Your task to perform on an android device: open app "Google Find My Device" (install if not already installed) Image 0: 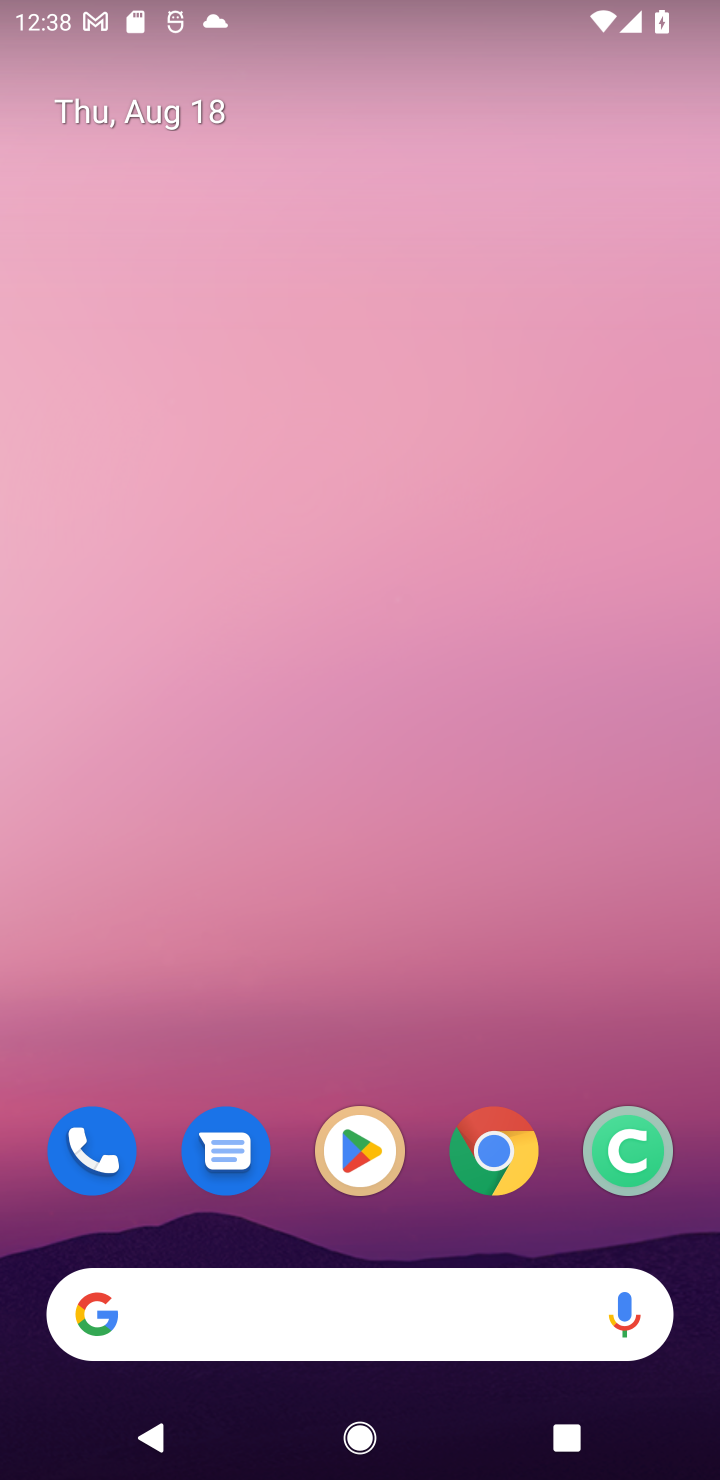
Step 0: click (355, 1168)
Your task to perform on an android device: open app "Google Find My Device" (install if not already installed) Image 1: 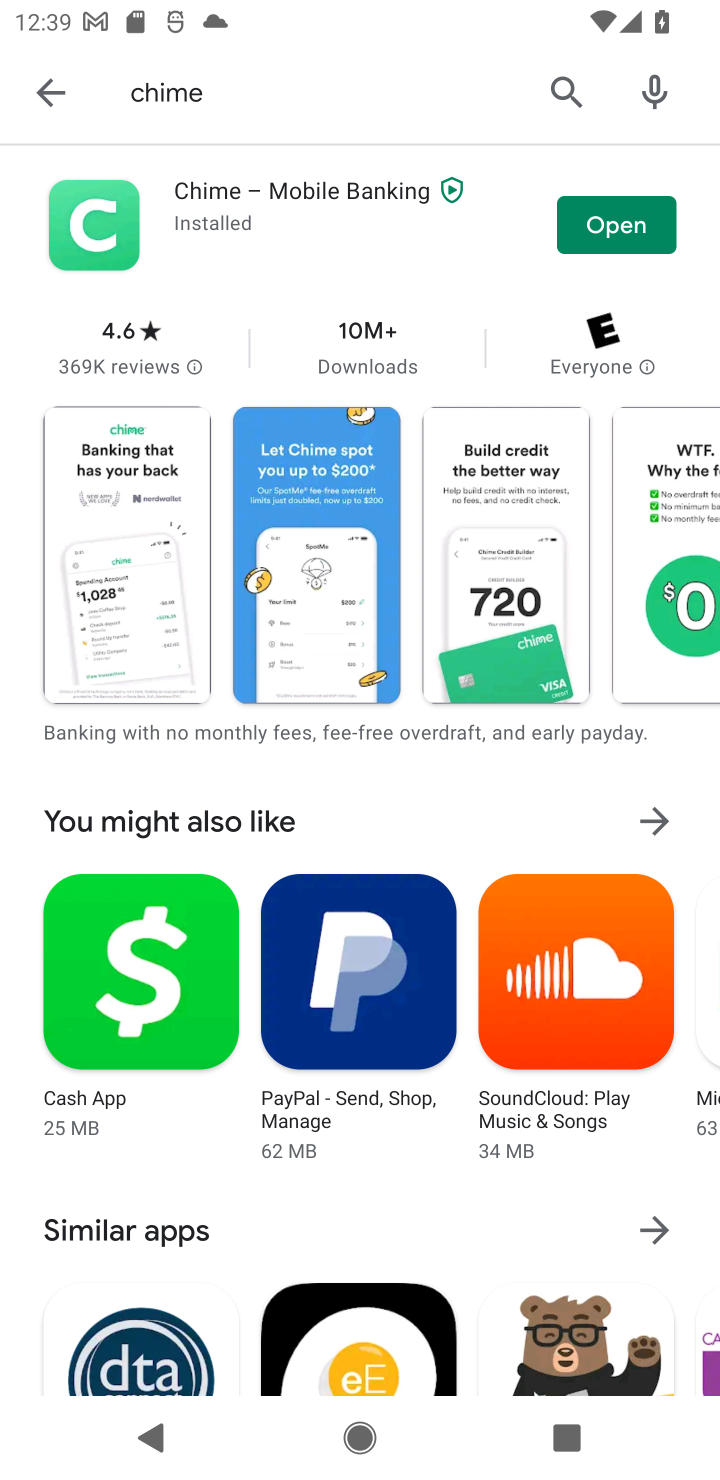
Step 1: click (54, 93)
Your task to perform on an android device: open app "Google Find My Device" (install if not already installed) Image 2: 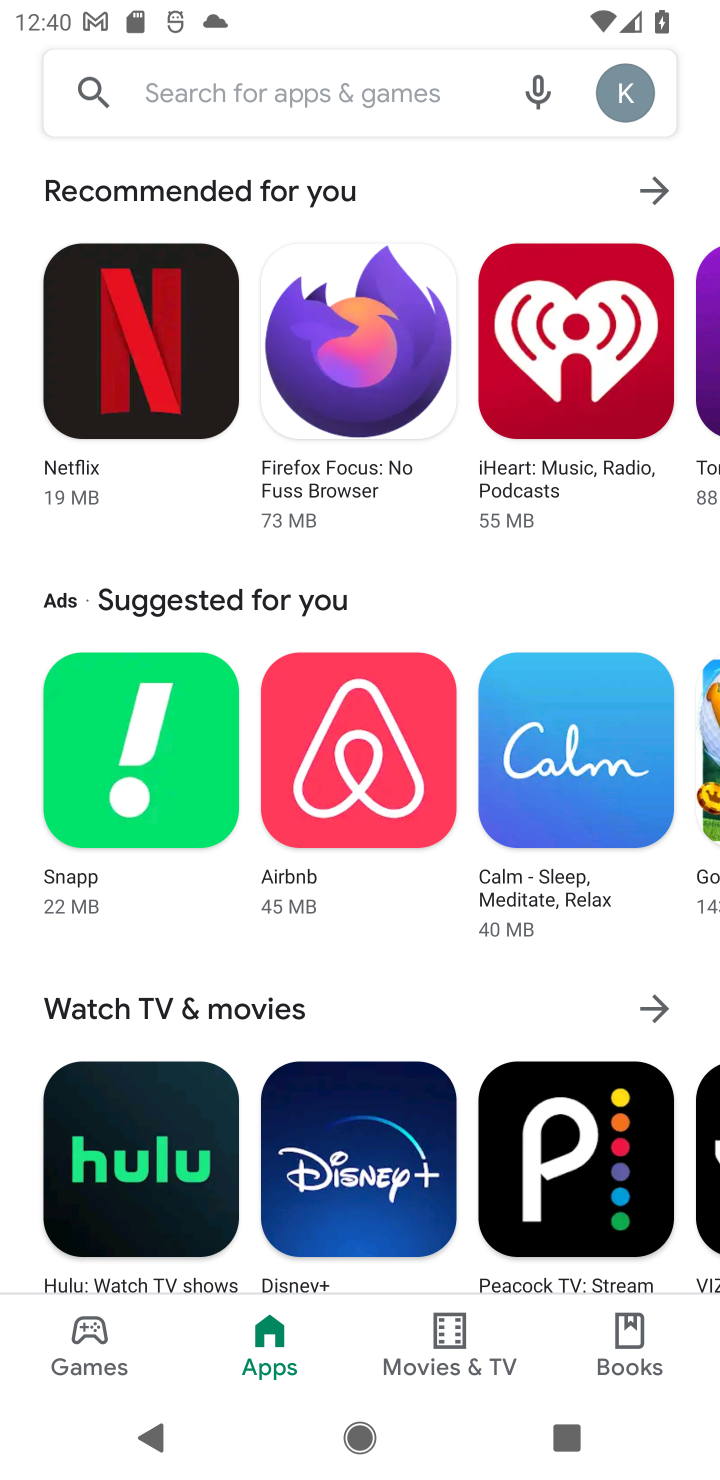
Step 2: click (236, 88)
Your task to perform on an android device: open app "Google Find My Device" (install if not already installed) Image 3: 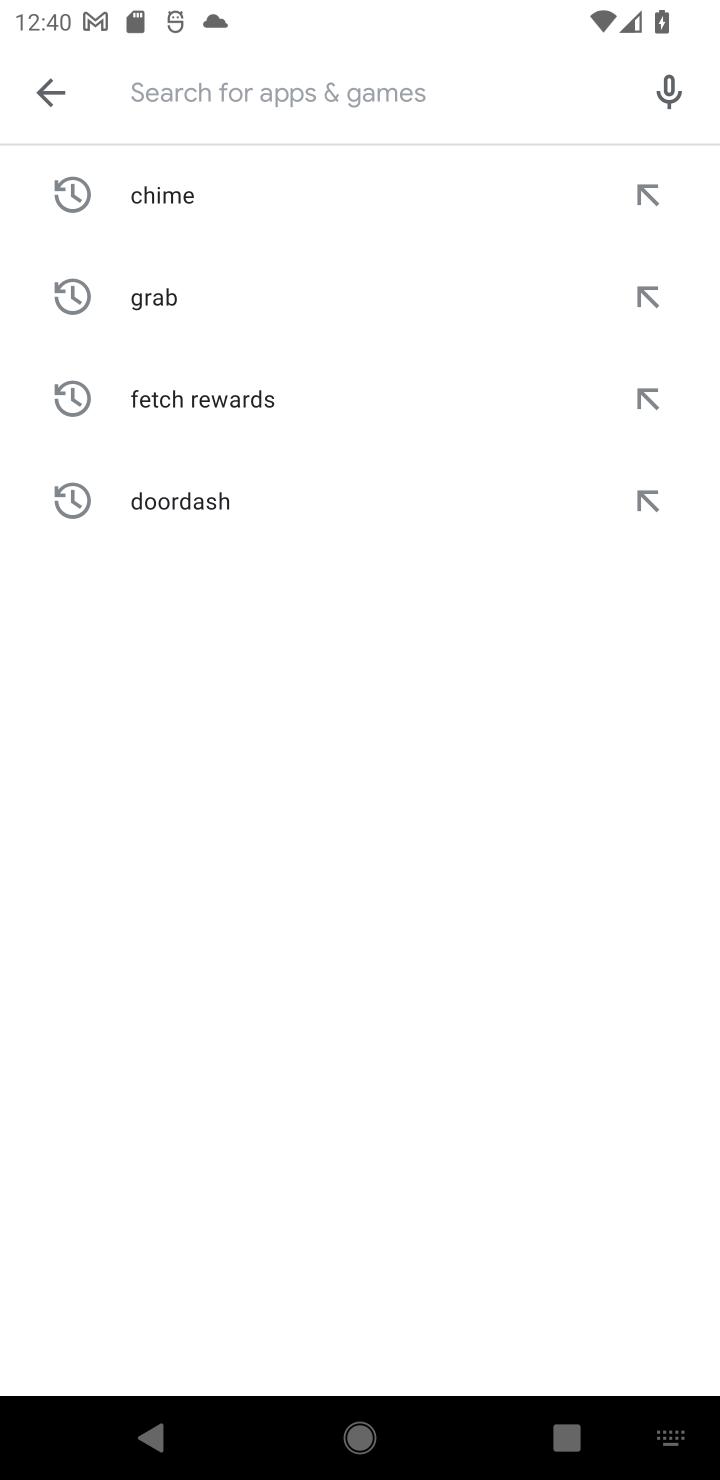
Step 3: type "Google Find My Device"
Your task to perform on an android device: open app "Google Find My Device" (install if not already installed) Image 4: 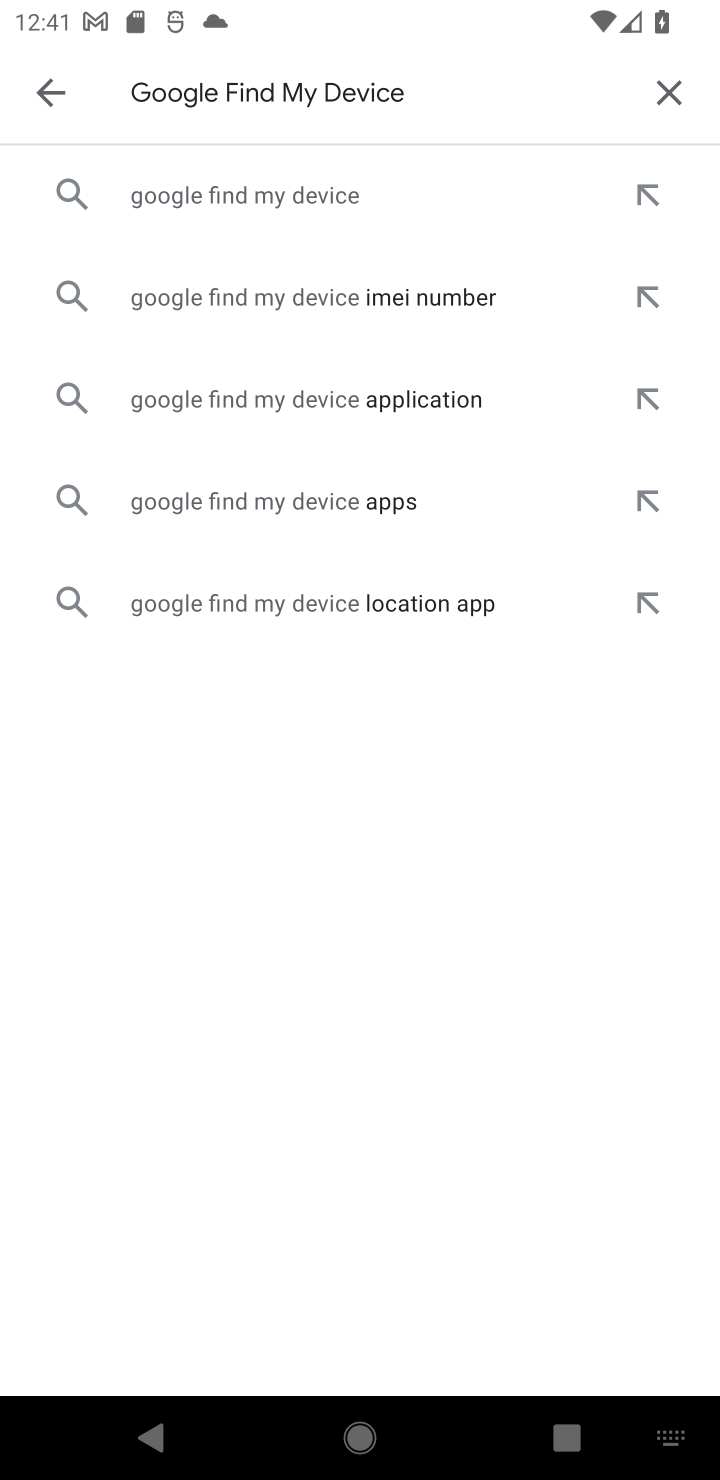
Step 4: click (200, 179)
Your task to perform on an android device: open app "Google Find My Device" (install if not already installed) Image 5: 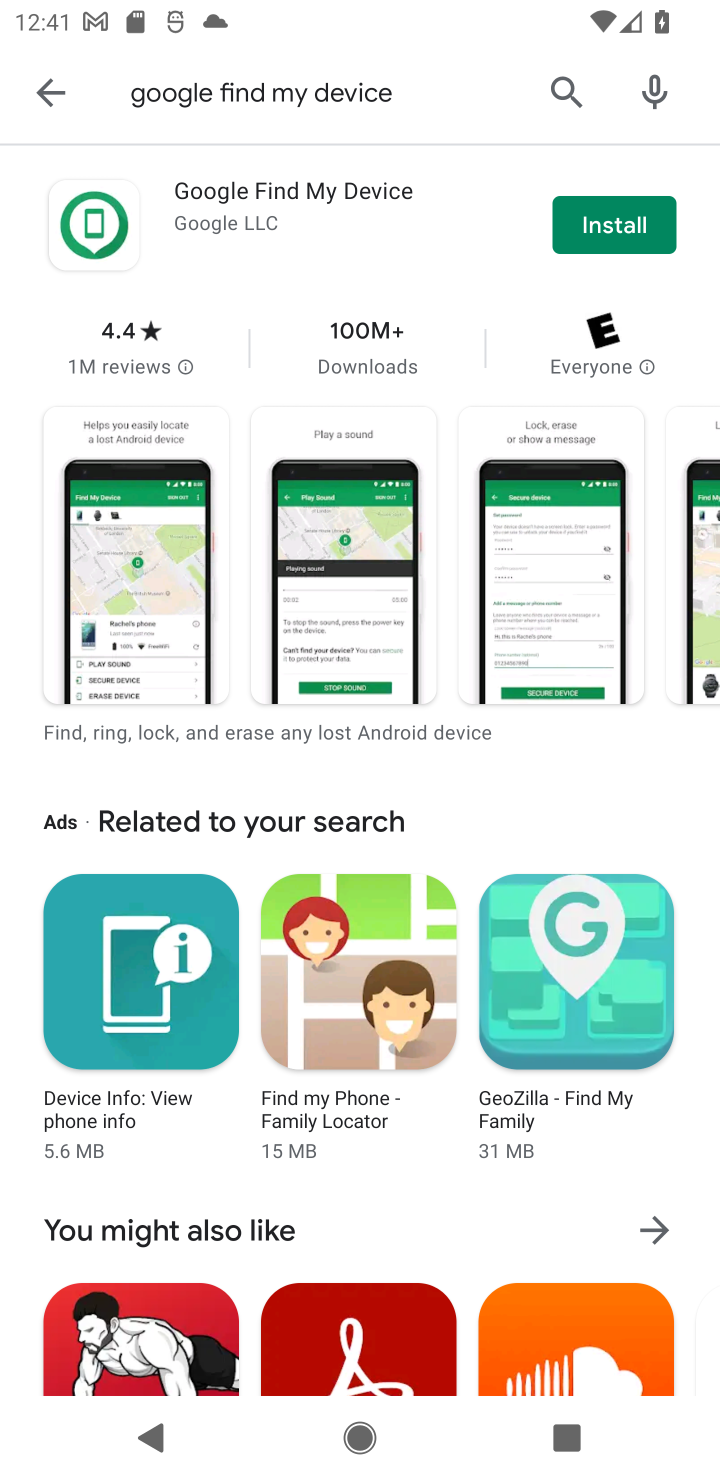
Step 5: click (629, 246)
Your task to perform on an android device: open app "Google Find My Device" (install if not already installed) Image 6: 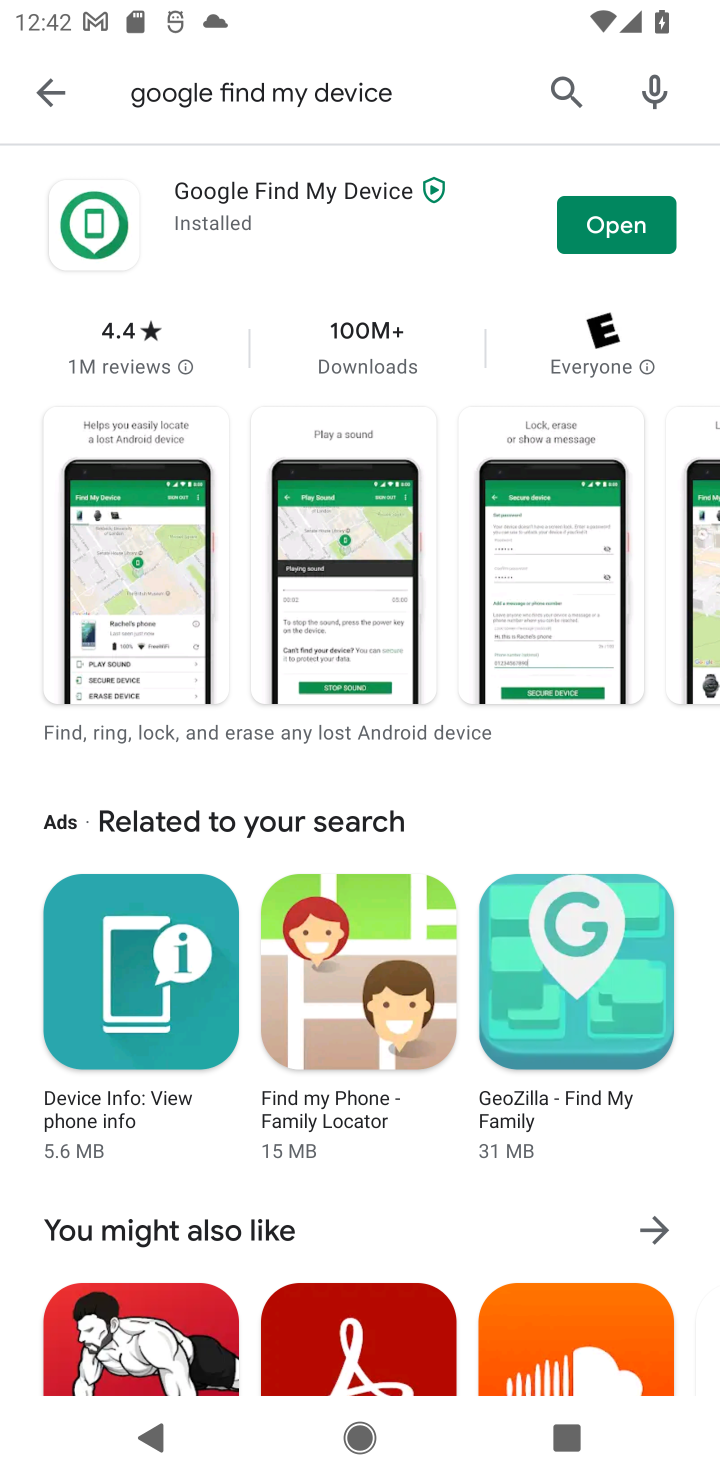
Step 6: click (629, 246)
Your task to perform on an android device: open app "Google Find My Device" (install if not already installed) Image 7: 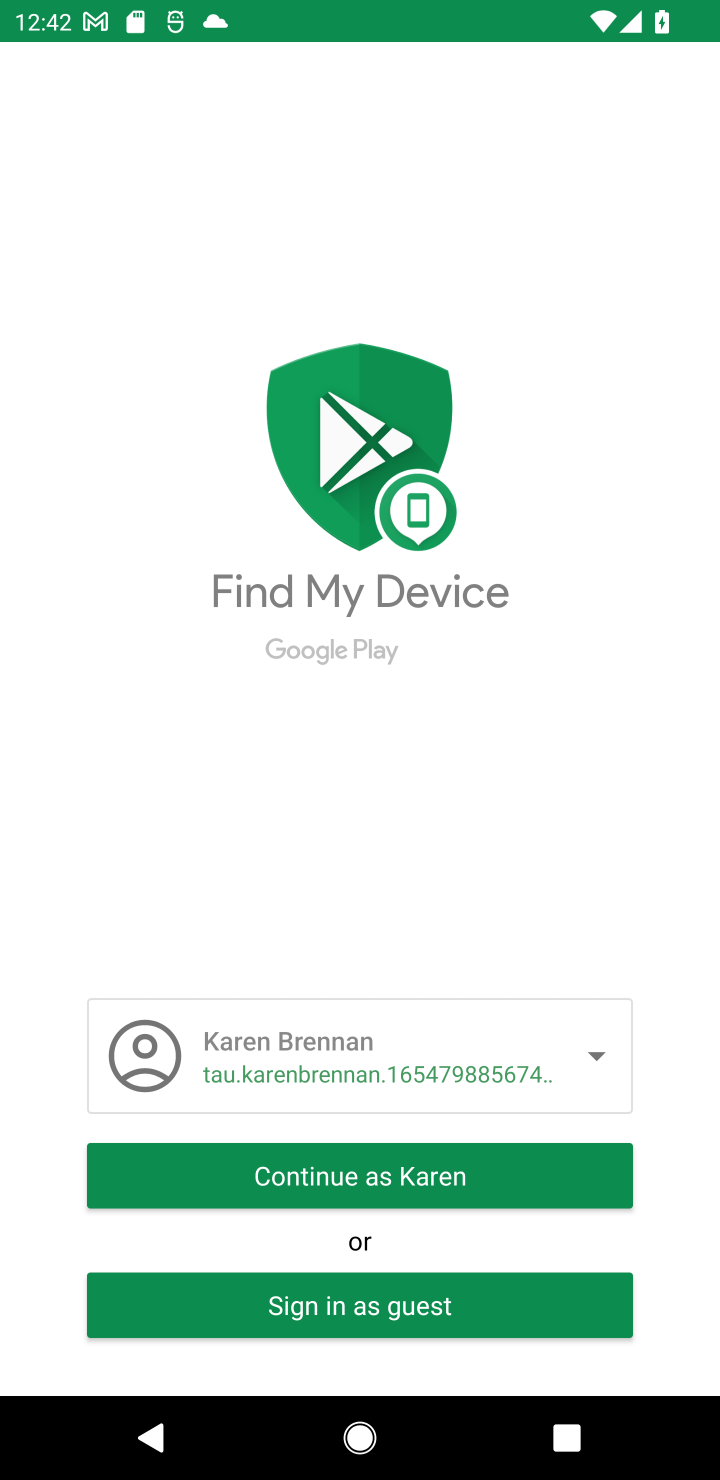
Step 7: task complete